Your task to perform on an android device: Go to network settings Image 0: 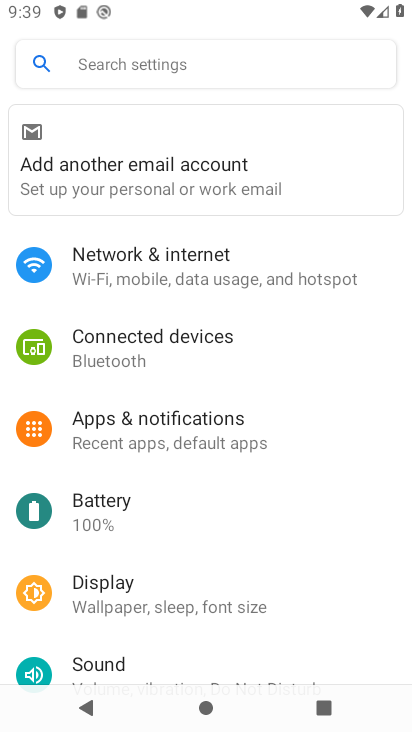
Step 0: click (133, 263)
Your task to perform on an android device: Go to network settings Image 1: 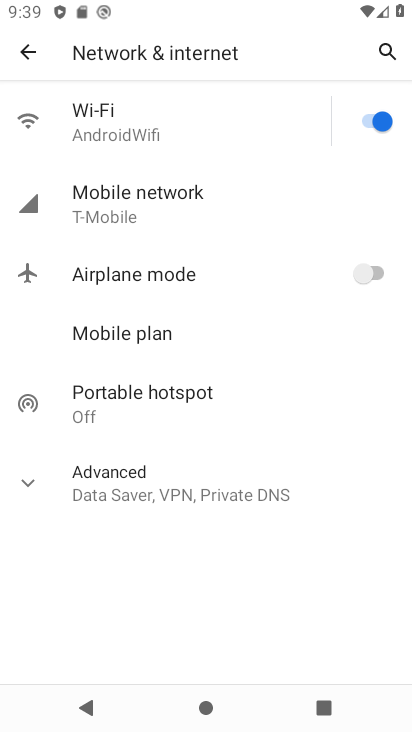
Step 1: task complete